Your task to perform on an android device: Open Reddit.com Image 0: 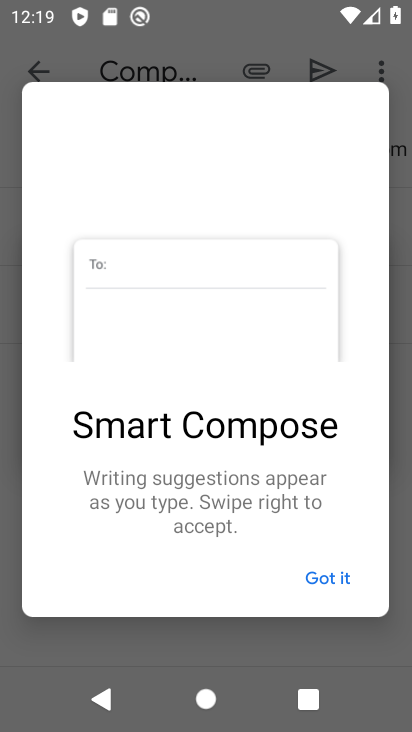
Step 0: press home button
Your task to perform on an android device: Open Reddit.com Image 1: 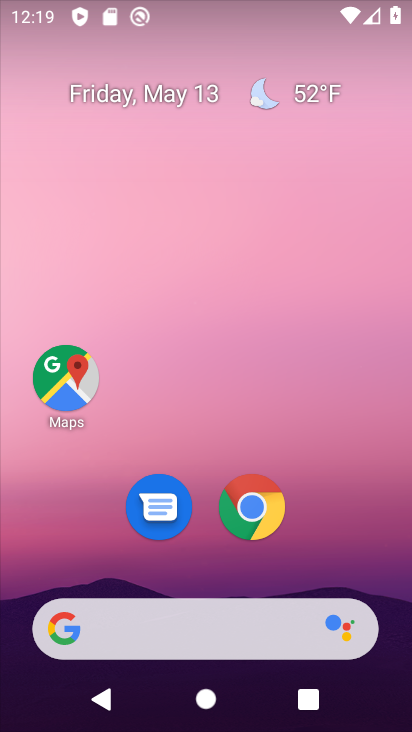
Step 1: drag from (199, 596) to (242, 185)
Your task to perform on an android device: Open Reddit.com Image 2: 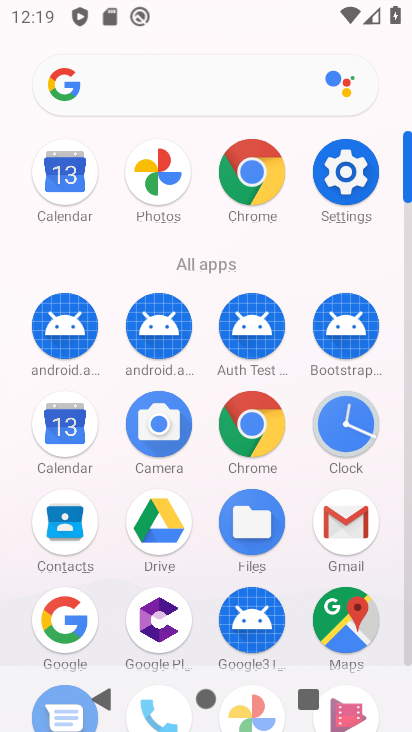
Step 2: click (68, 618)
Your task to perform on an android device: Open Reddit.com Image 3: 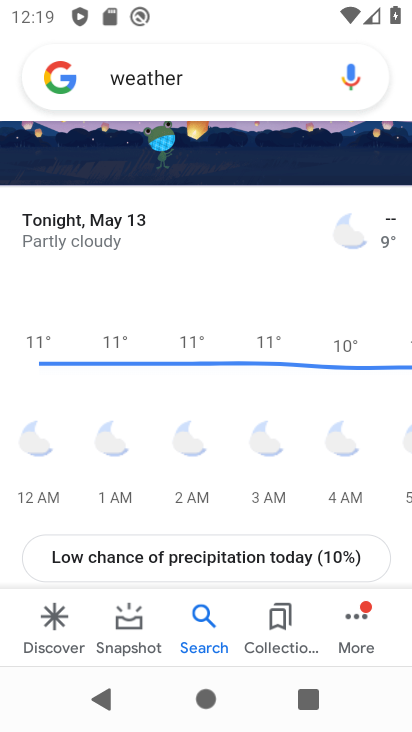
Step 3: click (217, 78)
Your task to perform on an android device: Open Reddit.com Image 4: 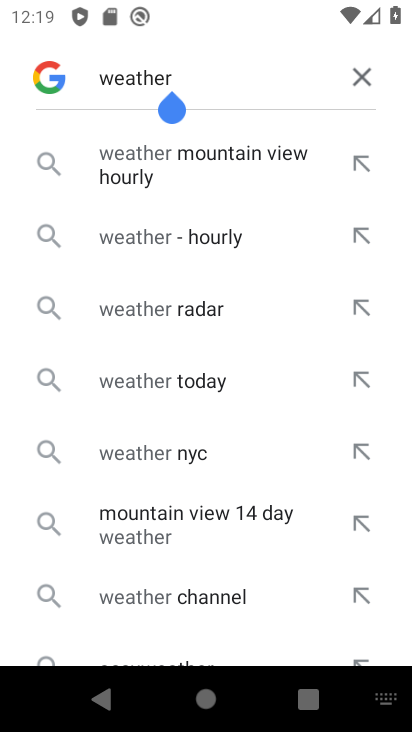
Step 4: click (362, 83)
Your task to perform on an android device: Open Reddit.com Image 5: 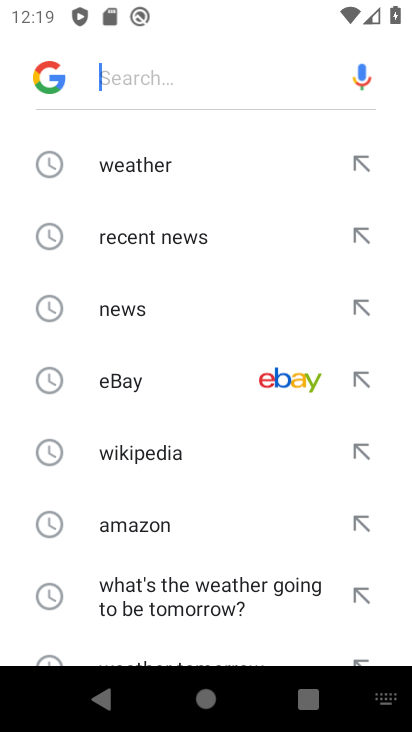
Step 5: drag from (182, 567) to (225, 296)
Your task to perform on an android device: Open Reddit.com Image 6: 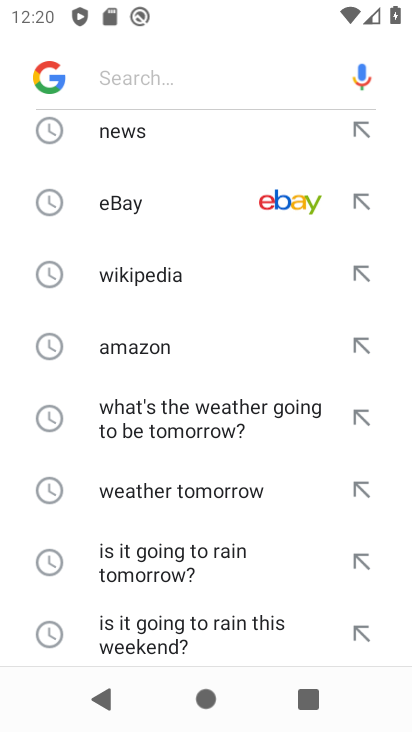
Step 6: drag from (178, 504) to (184, 272)
Your task to perform on an android device: Open Reddit.com Image 7: 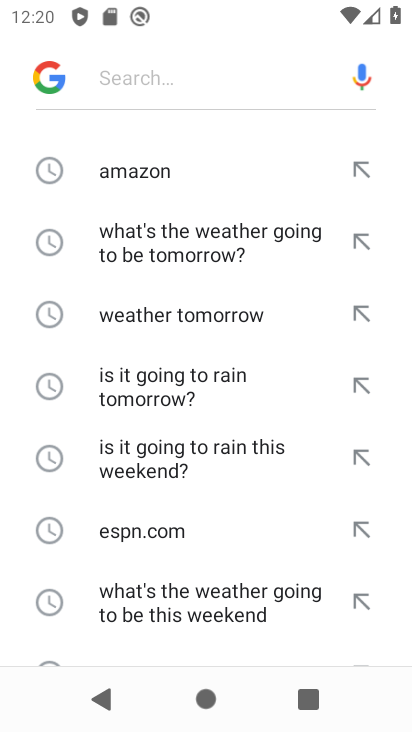
Step 7: drag from (159, 595) to (192, 257)
Your task to perform on an android device: Open Reddit.com Image 8: 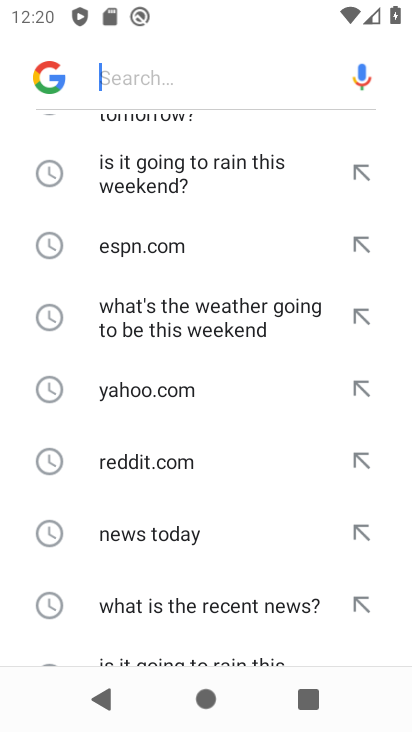
Step 8: click (170, 465)
Your task to perform on an android device: Open Reddit.com Image 9: 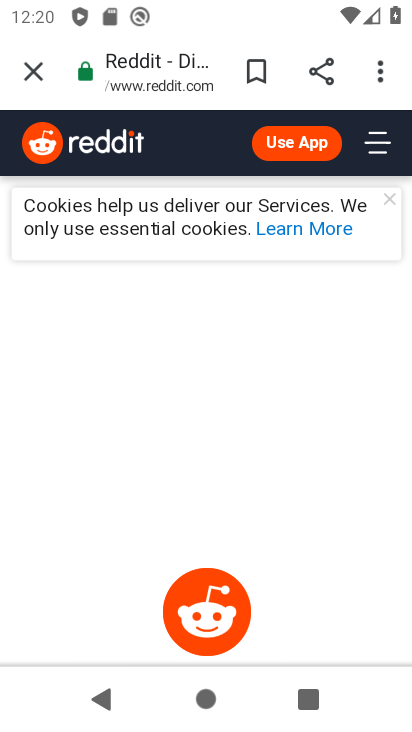
Step 9: task complete